Your task to perform on an android device: turn pop-ups off in chrome Image 0: 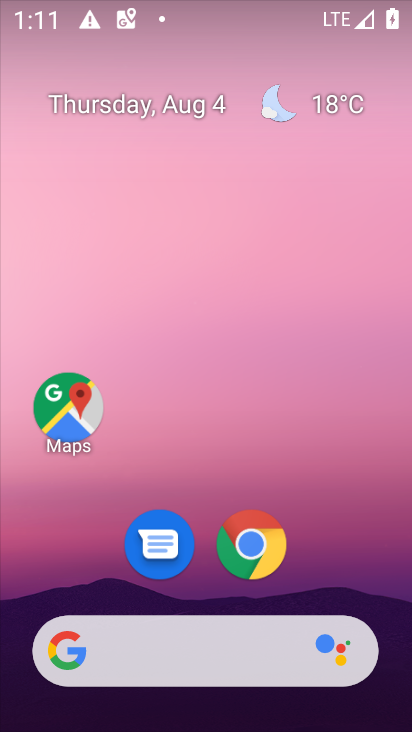
Step 0: click (249, 545)
Your task to perform on an android device: turn pop-ups off in chrome Image 1: 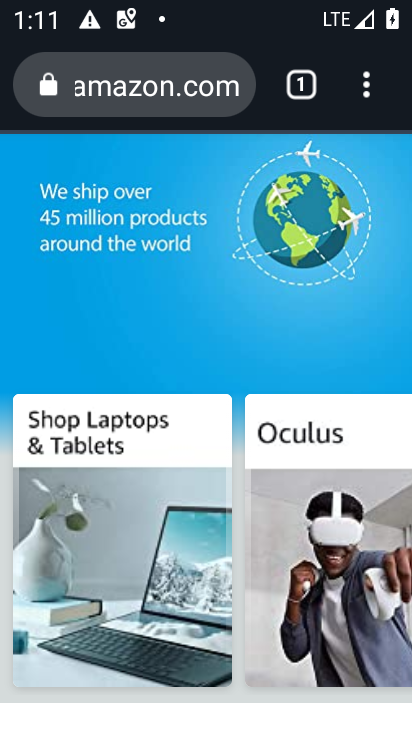
Step 1: click (367, 84)
Your task to perform on an android device: turn pop-ups off in chrome Image 2: 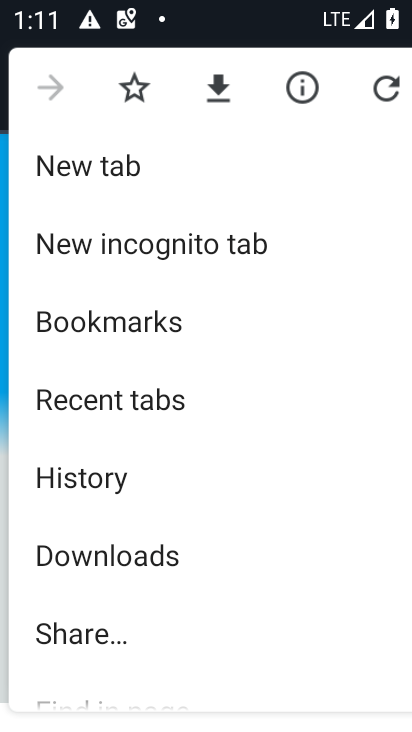
Step 2: drag from (257, 625) to (279, 291)
Your task to perform on an android device: turn pop-ups off in chrome Image 3: 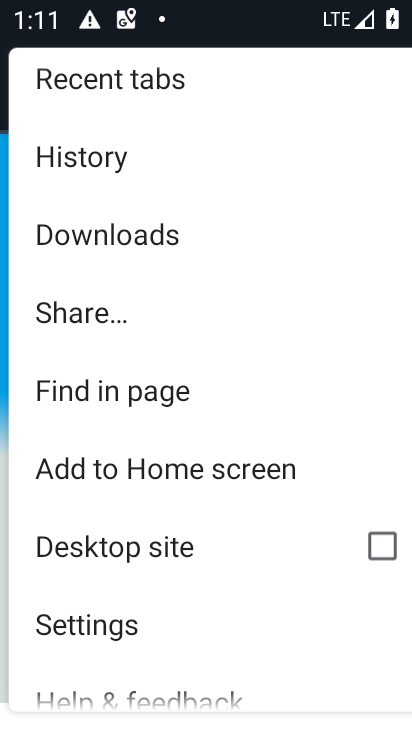
Step 3: drag from (252, 633) to (256, 284)
Your task to perform on an android device: turn pop-ups off in chrome Image 4: 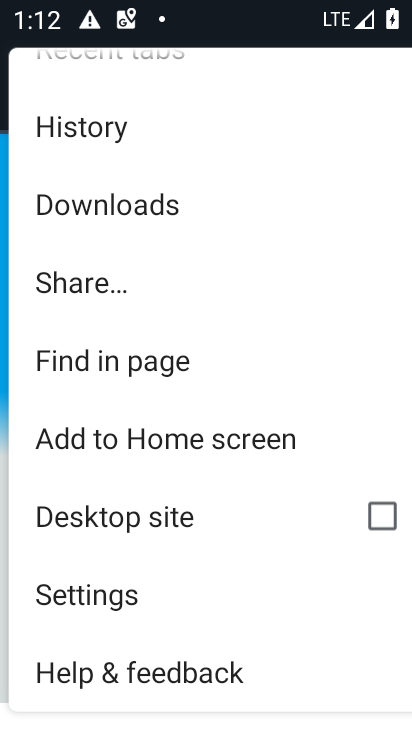
Step 4: click (86, 595)
Your task to perform on an android device: turn pop-ups off in chrome Image 5: 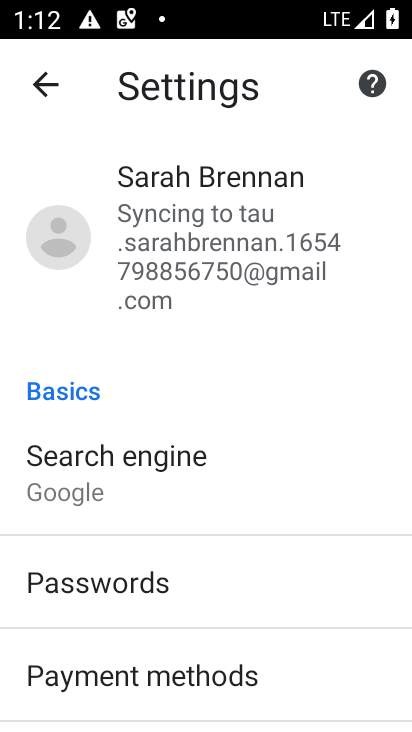
Step 5: drag from (329, 679) to (337, 252)
Your task to perform on an android device: turn pop-ups off in chrome Image 6: 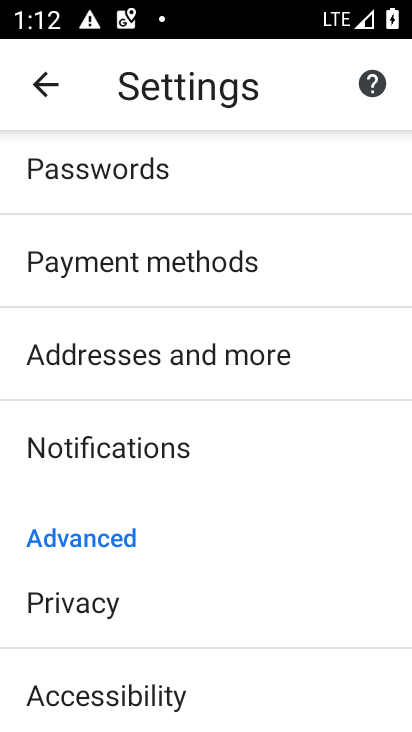
Step 6: drag from (280, 665) to (277, 315)
Your task to perform on an android device: turn pop-ups off in chrome Image 7: 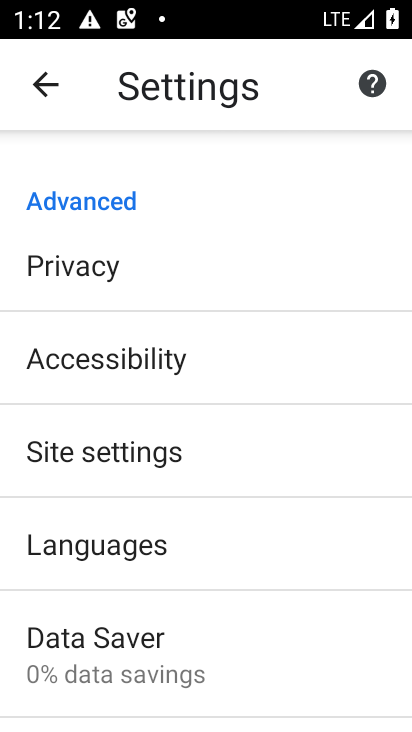
Step 7: drag from (279, 649) to (257, 355)
Your task to perform on an android device: turn pop-ups off in chrome Image 8: 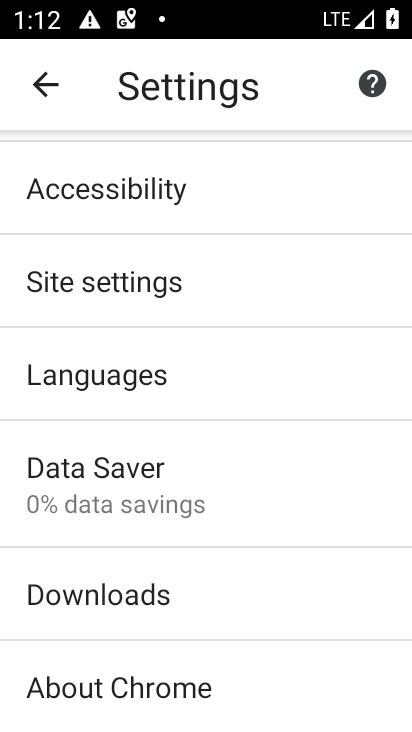
Step 8: drag from (262, 615) to (252, 287)
Your task to perform on an android device: turn pop-ups off in chrome Image 9: 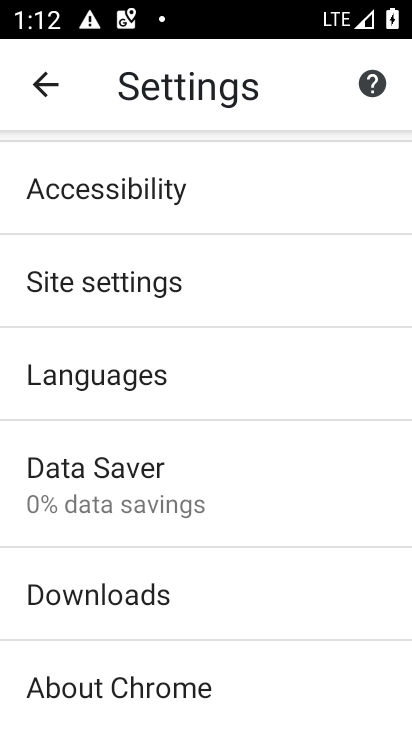
Step 9: click (65, 288)
Your task to perform on an android device: turn pop-ups off in chrome Image 10: 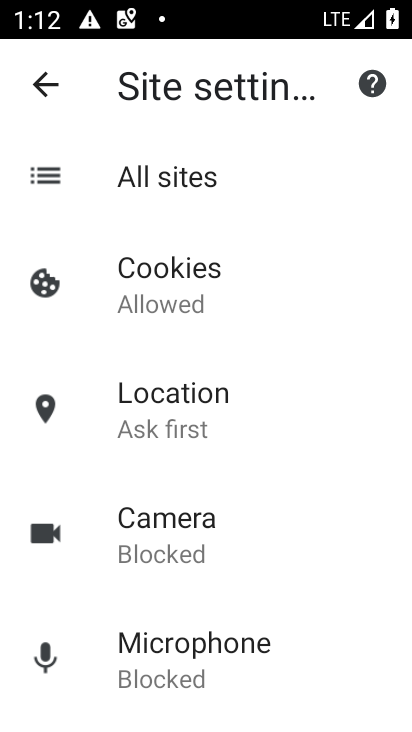
Step 10: drag from (282, 689) to (280, 263)
Your task to perform on an android device: turn pop-ups off in chrome Image 11: 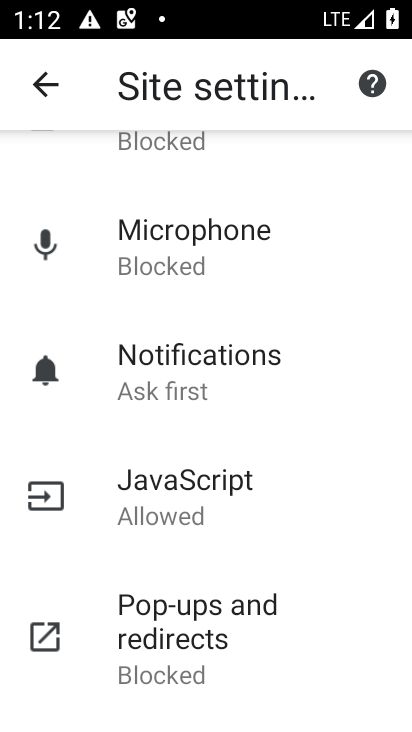
Step 11: click (192, 613)
Your task to perform on an android device: turn pop-ups off in chrome Image 12: 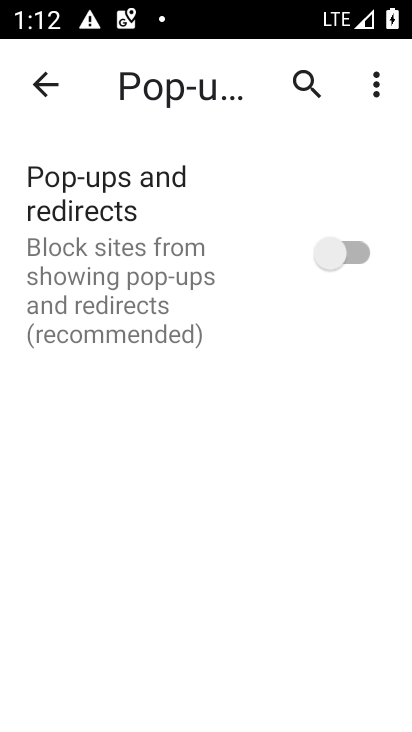
Step 12: task complete